Your task to perform on an android device: Open maps Image 0: 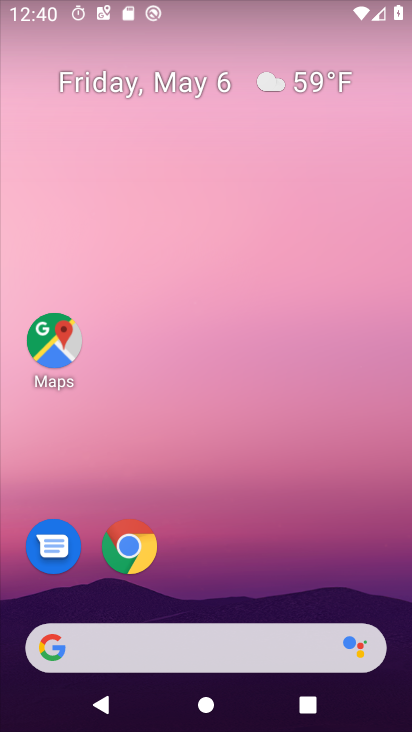
Step 0: click (57, 343)
Your task to perform on an android device: Open maps Image 1: 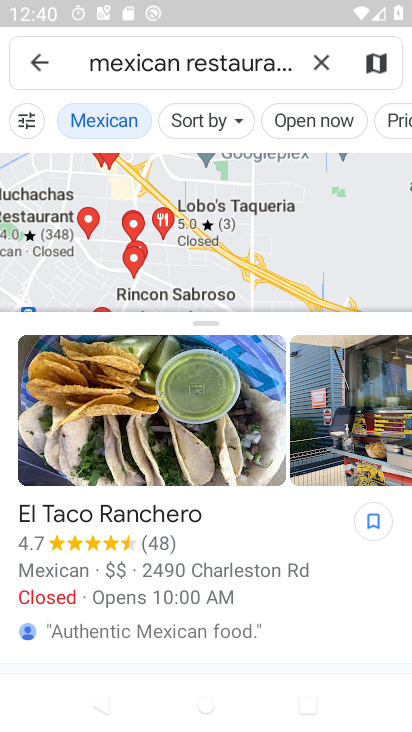
Step 1: task complete